Your task to perform on an android device: Search for alienware area 51 on bestbuy, select the first entry, and add it to the cart. Image 0: 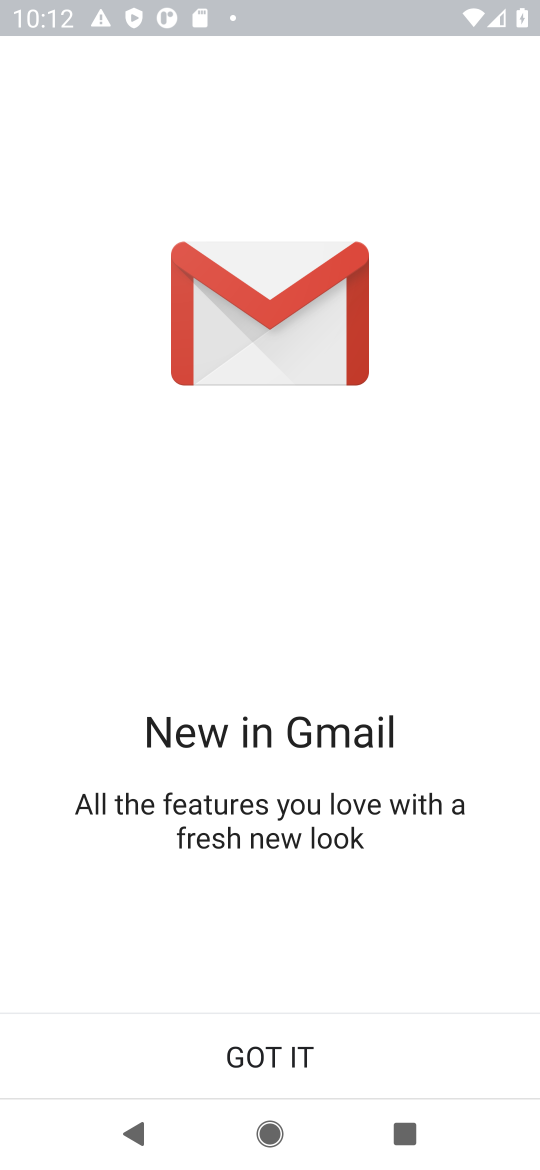
Step 0: press home button
Your task to perform on an android device: Search for alienware area 51 on bestbuy, select the first entry, and add it to the cart. Image 1: 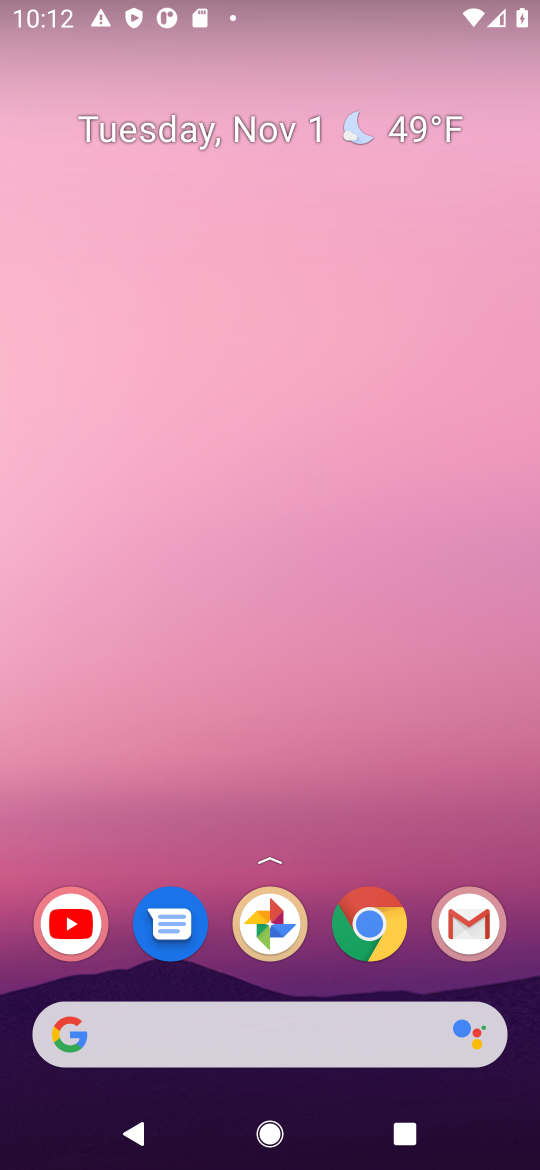
Step 1: click (376, 945)
Your task to perform on an android device: Search for alienware area 51 on bestbuy, select the first entry, and add it to the cart. Image 2: 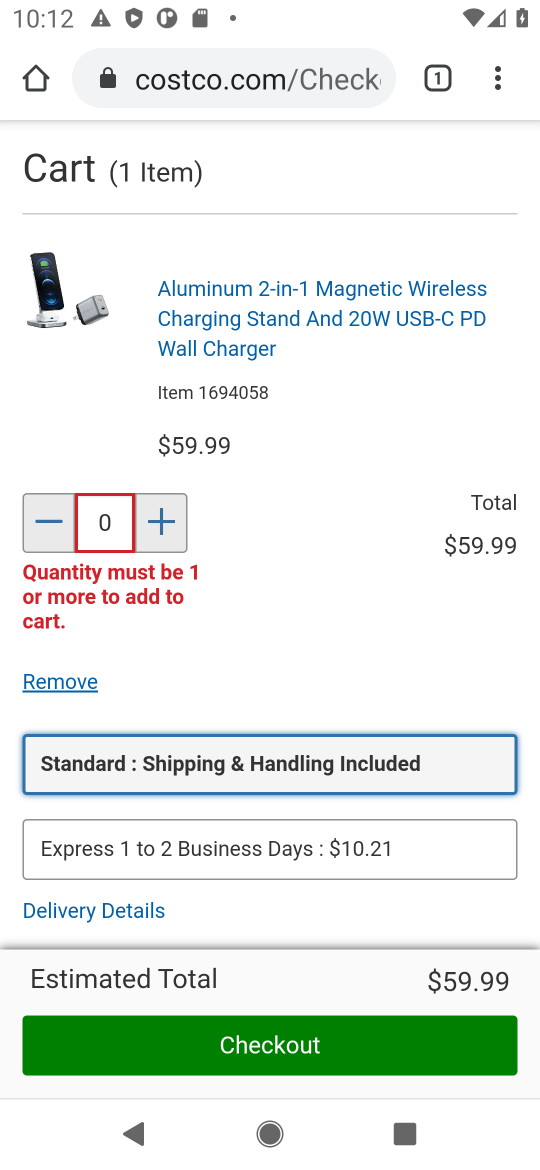
Step 2: click (257, 90)
Your task to perform on an android device: Search for alienware area 51 on bestbuy, select the first entry, and add it to the cart. Image 3: 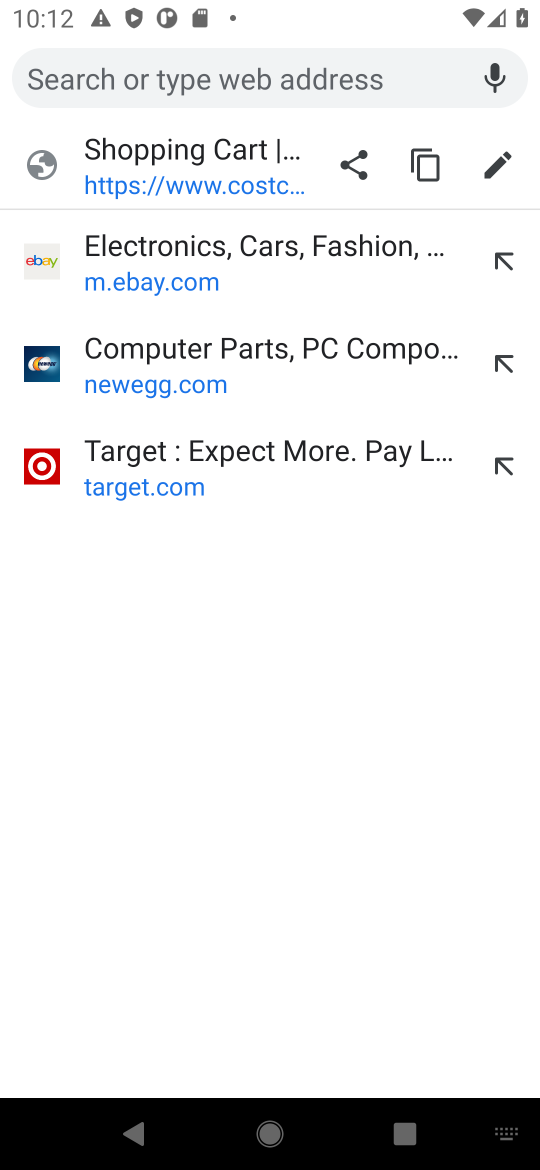
Step 3: type "bestbuy"
Your task to perform on an android device: Search for alienware area 51 on bestbuy, select the first entry, and add it to the cart. Image 4: 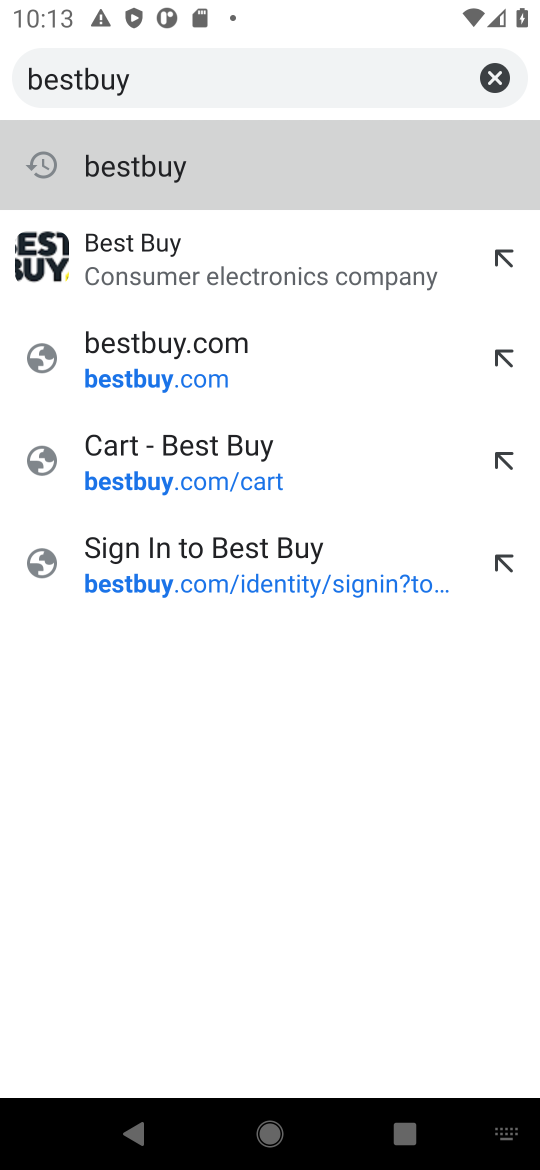
Step 4: click (176, 169)
Your task to perform on an android device: Search for alienware area 51 on bestbuy, select the first entry, and add it to the cart. Image 5: 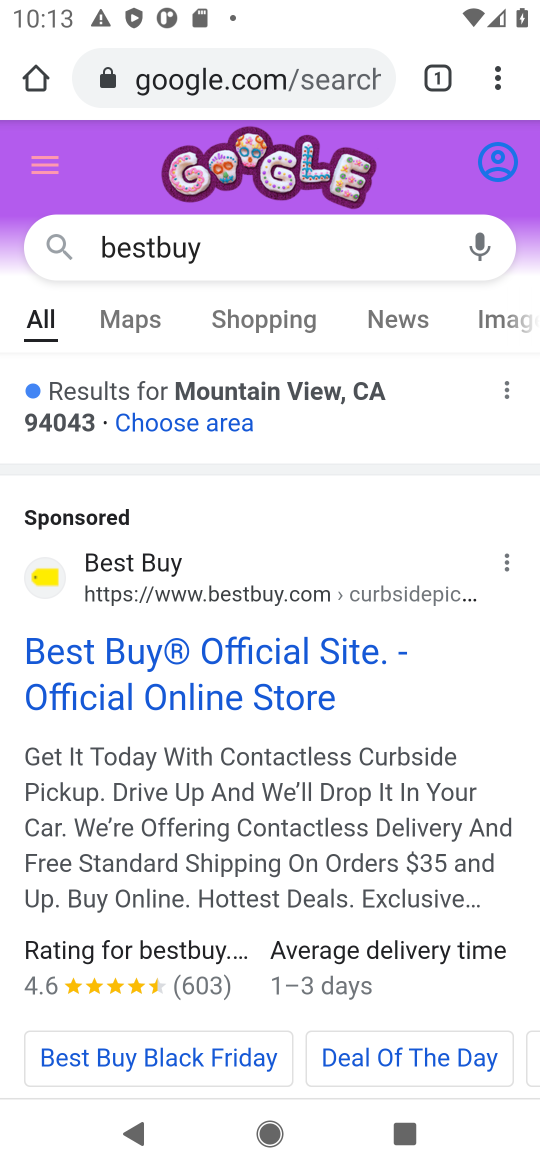
Step 5: click (212, 646)
Your task to perform on an android device: Search for alienware area 51 on bestbuy, select the first entry, and add it to the cart. Image 6: 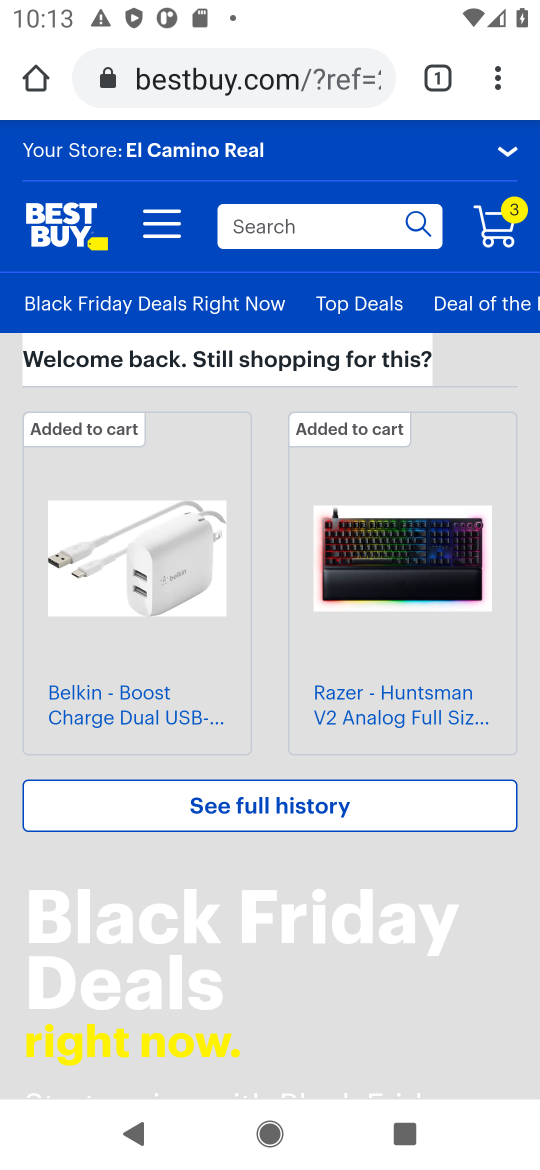
Step 6: click (317, 223)
Your task to perform on an android device: Search for alienware area 51 on bestbuy, select the first entry, and add it to the cart. Image 7: 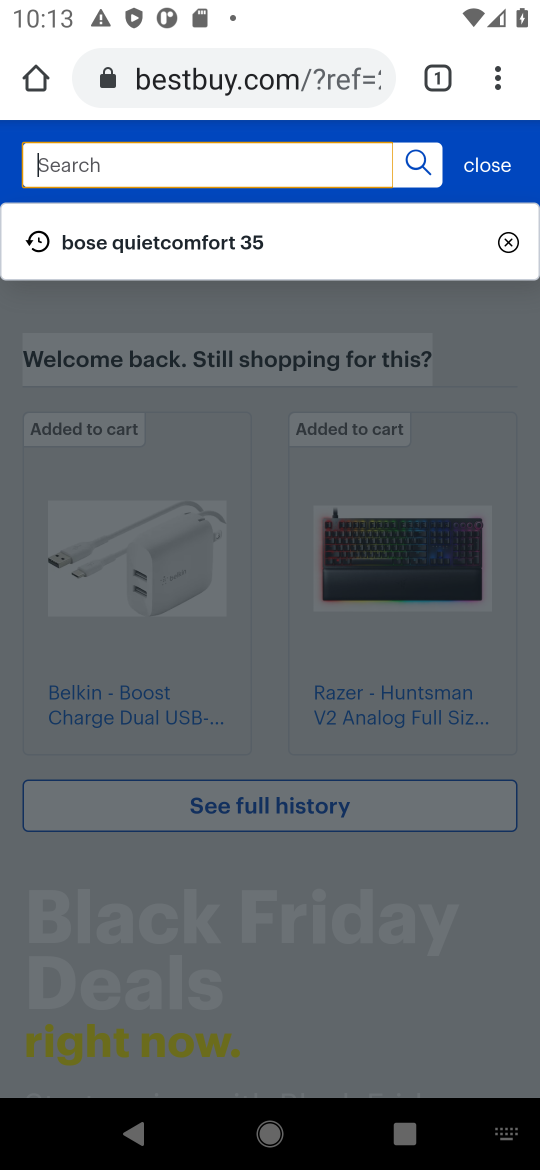
Step 7: type "alienware area 51"
Your task to perform on an android device: Search for alienware area 51 on bestbuy, select the first entry, and add it to the cart. Image 8: 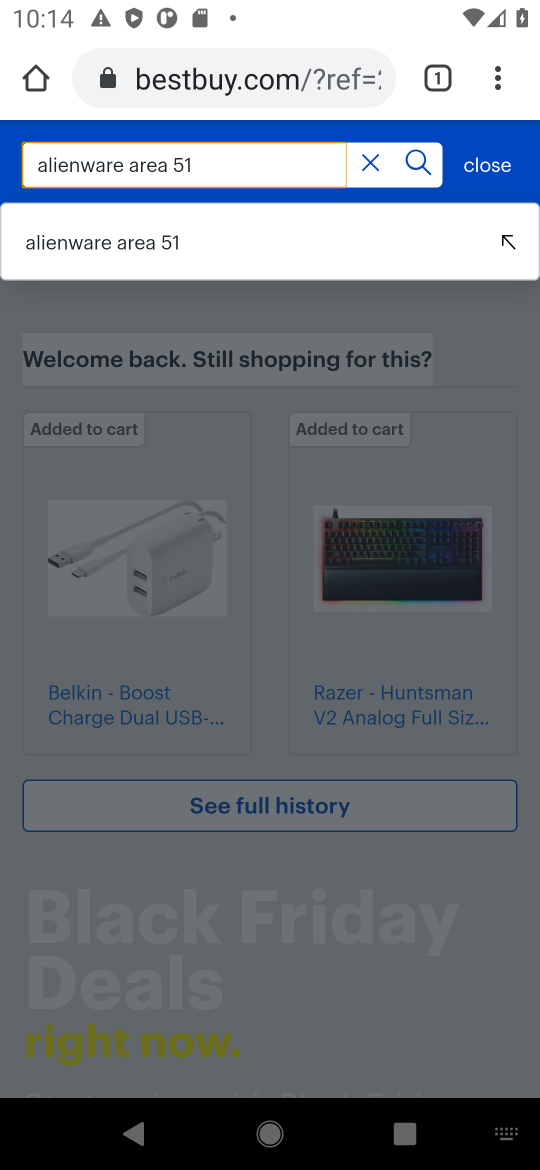
Step 8: click (120, 247)
Your task to perform on an android device: Search for alienware area 51 on bestbuy, select the first entry, and add it to the cart. Image 9: 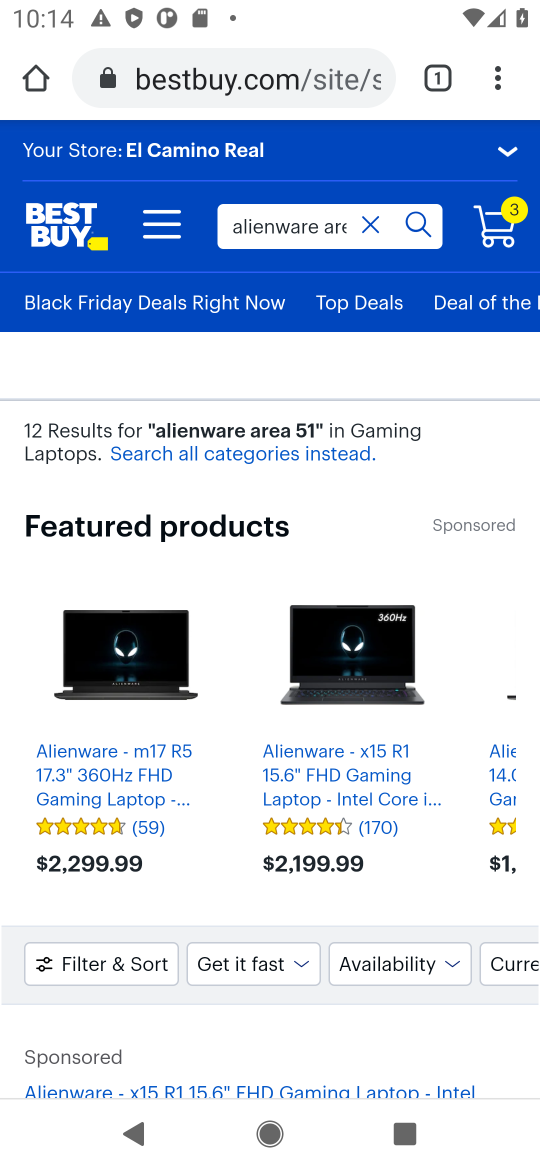
Step 9: drag from (199, 730) to (183, 189)
Your task to perform on an android device: Search for alienware area 51 on bestbuy, select the first entry, and add it to the cart. Image 10: 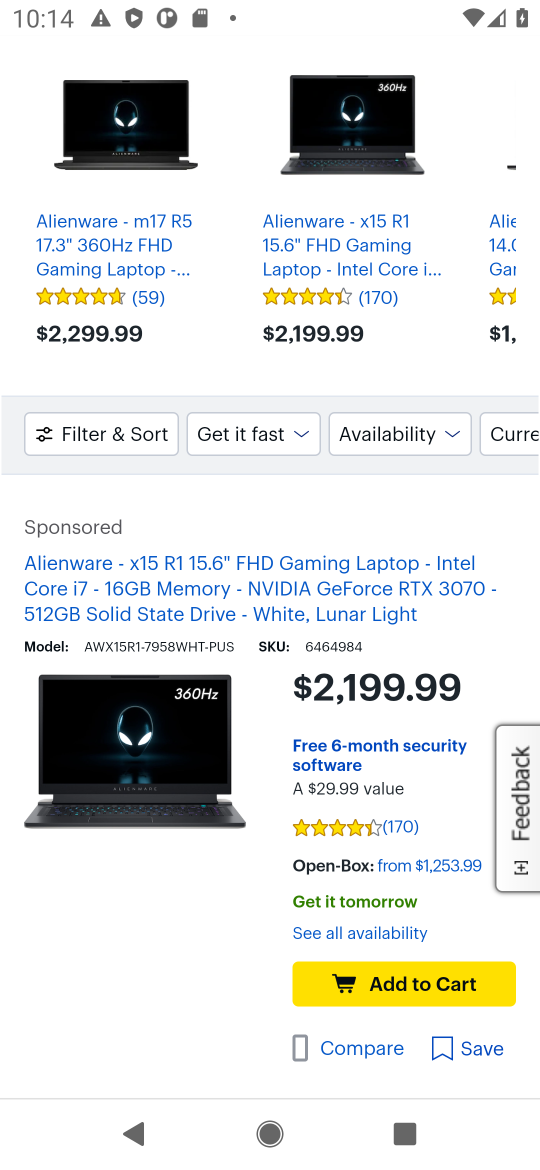
Step 10: click (154, 717)
Your task to perform on an android device: Search for alienware area 51 on bestbuy, select the first entry, and add it to the cart. Image 11: 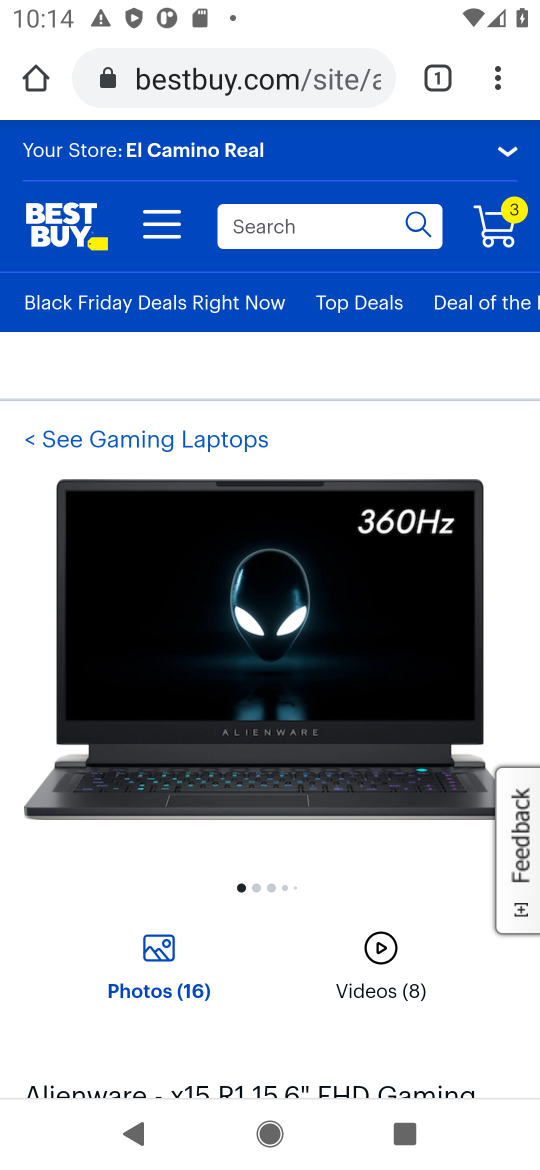
Step 11: drag from (37, 962) to (62, 580)
Your task to perform on an android device: Search for alienware area 51 on bestbuy, select the first entry, and add it to the cart. Image 12: 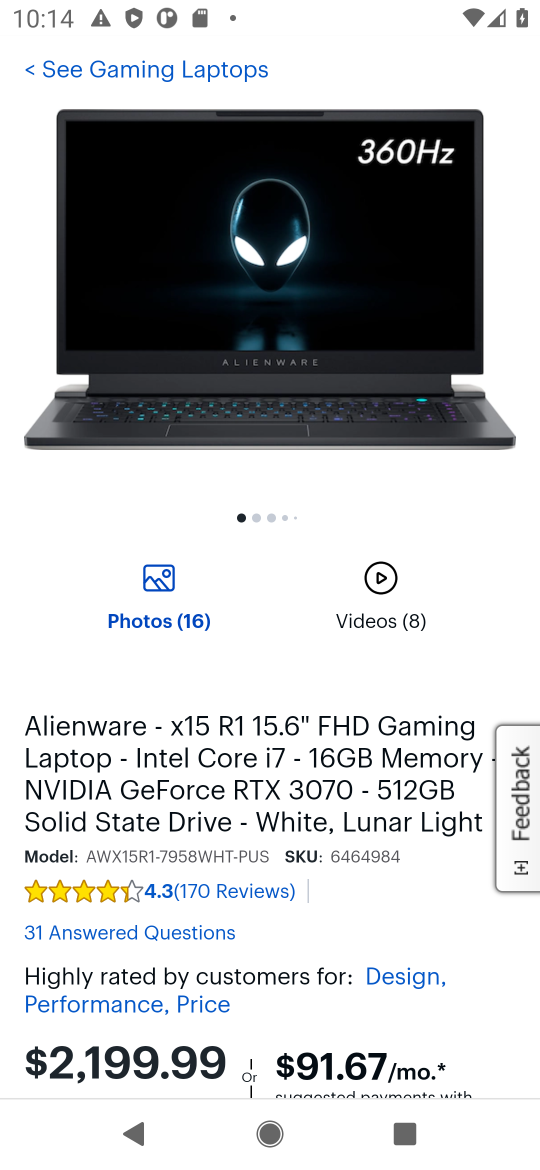
Step 12: drag from (384, 791) to (415, 74)
Your task to perform on an android device: Search for alienware area 51 on bestbuy, select the first entry, and add it to the cart. Image 13: 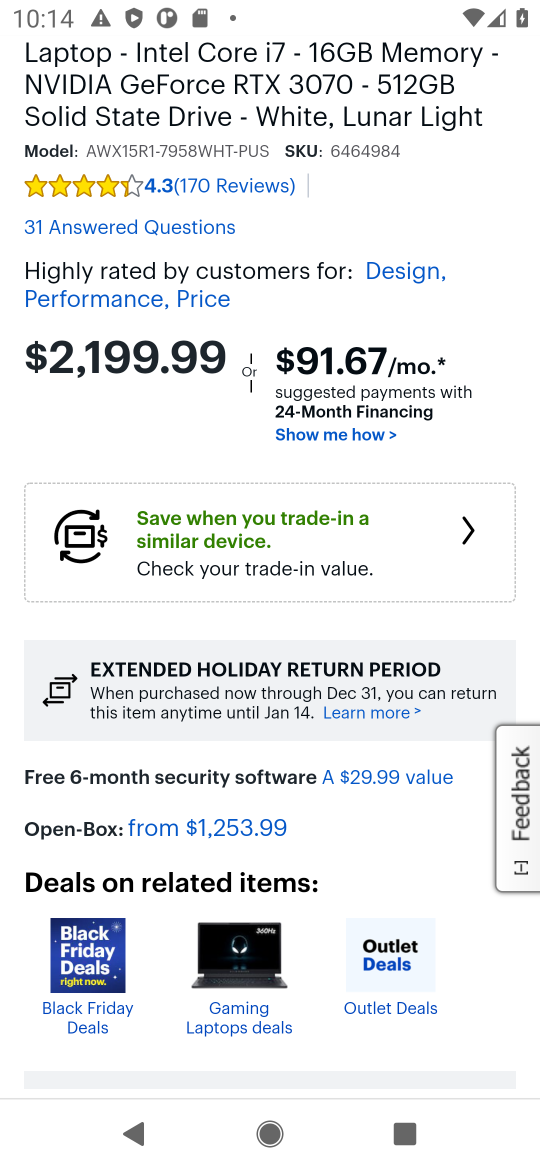
Step 13: drag from (368, 935) to (338, 532)
Your task to perform on an android device: Search for alienware area 51 on bestbuy, select the first entry, and add it to the cart. Image 14: 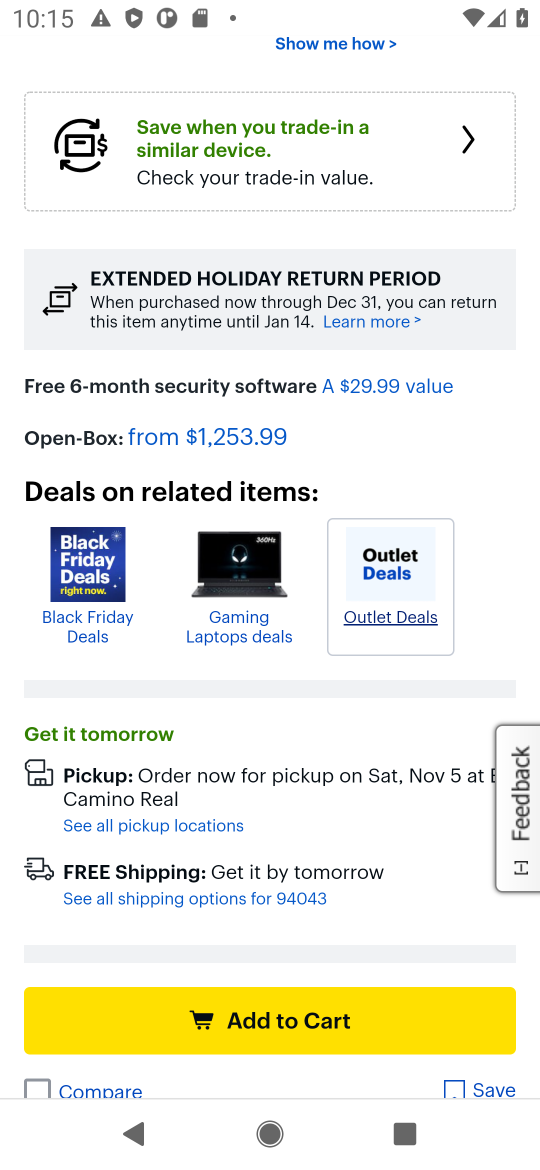
Step 14: click (284, 1022)
Your task to perform on an android device: Search for alienware area 51 on bestbuy, select the first entry, and add it to the cart. Image 15: 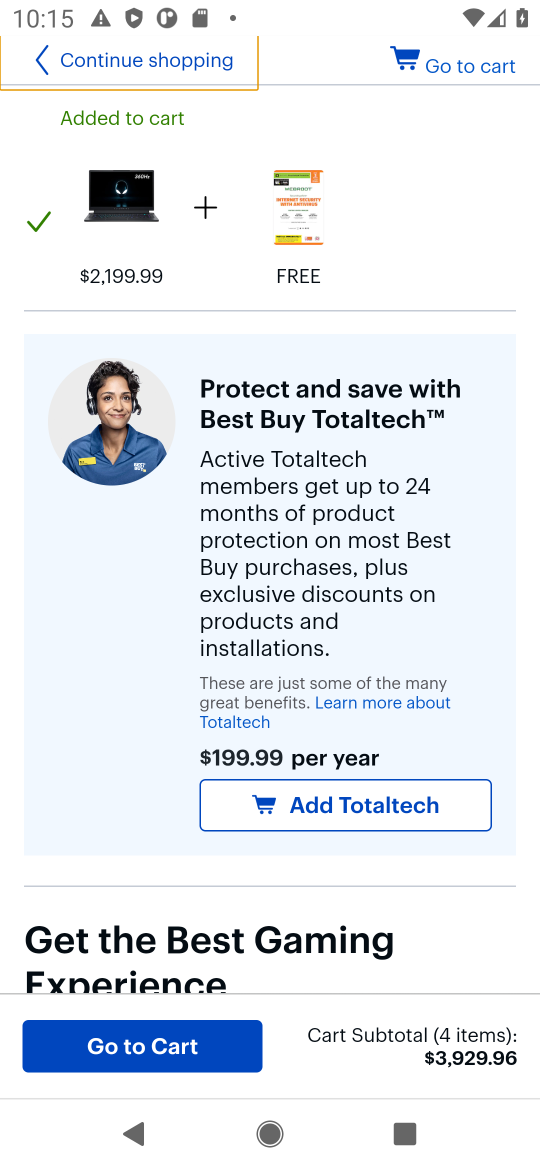
Step 15: task complete